Your task to perform on an android device: Show me the alarms in the clock app Image 0: 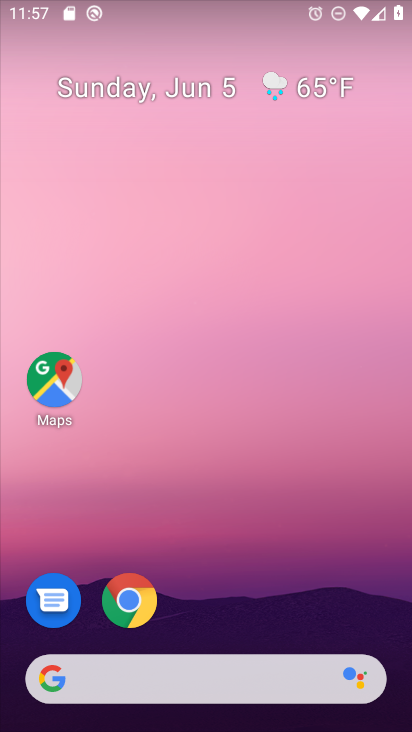
Step 0: drag from (382, 642) to (146, 78)
Your task to perform on an android device: Show me the alarms in the clock app Image 1: 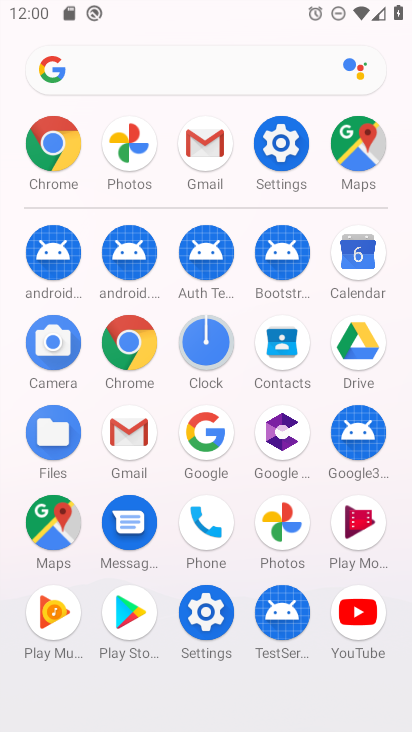
Step 1: click (206, 326)
Your task to perform on an android device: Show me the alarms in the clock app Image 2: 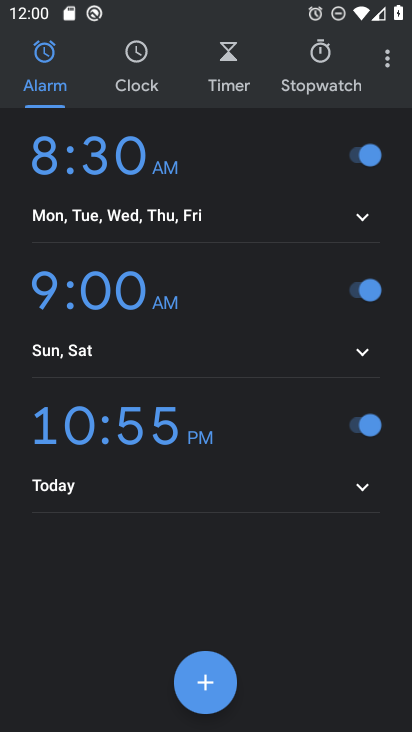
Step 2: task complete